Your task to perform on an android device: Open eBay Image 0: 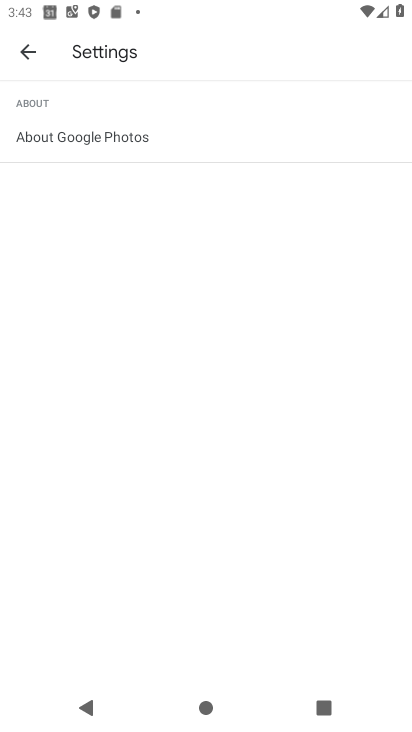
Step 0: press home button
Your task to perform on an android device: Open eBay Image 1: 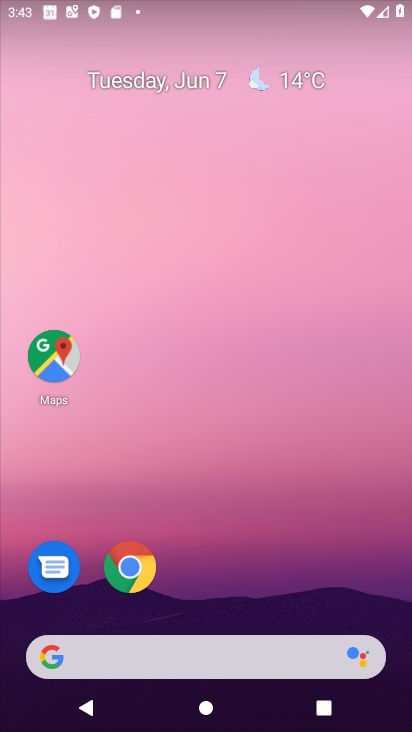
Step 1: click (126, 572)
Your task to perform on an android device: Open eBay Image 2: 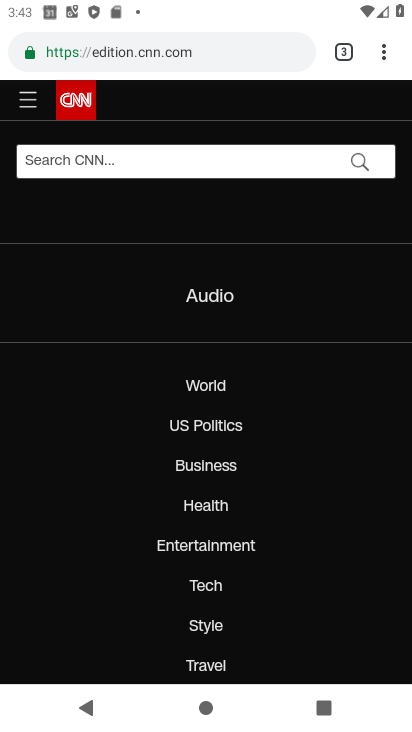
Step 2: click (340, 57)
Your task to perform on an android device: Open eBay Image 3: 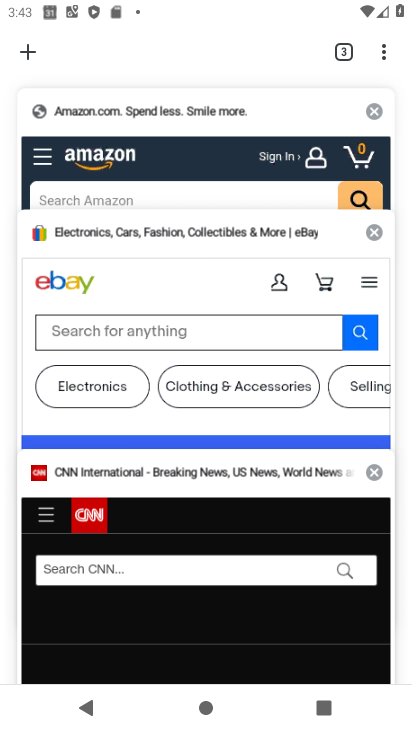
Step 3: click (117, 273)
Your task to perform on an android device: Open eBay Image 4: 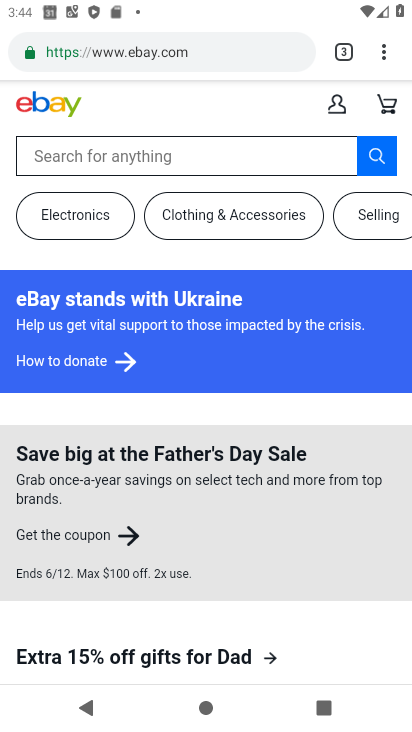
Step 4: task complete